Your task to perform on an android device: see sites visited before in the chrome app Image 0: 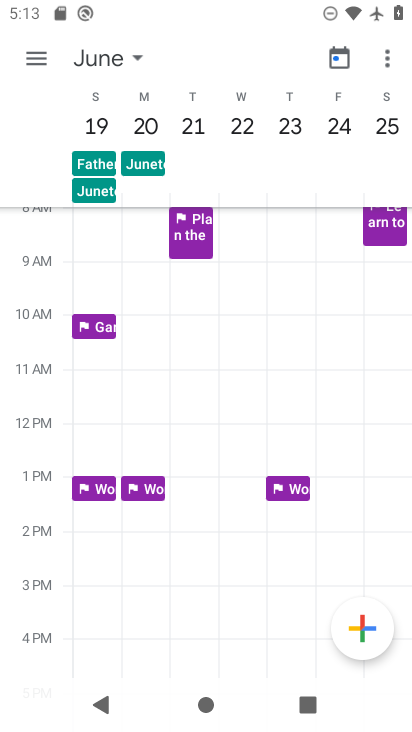
Step 0: press home button
Your task to perform on an android device: see sites visited before in the chrome app Image 1: 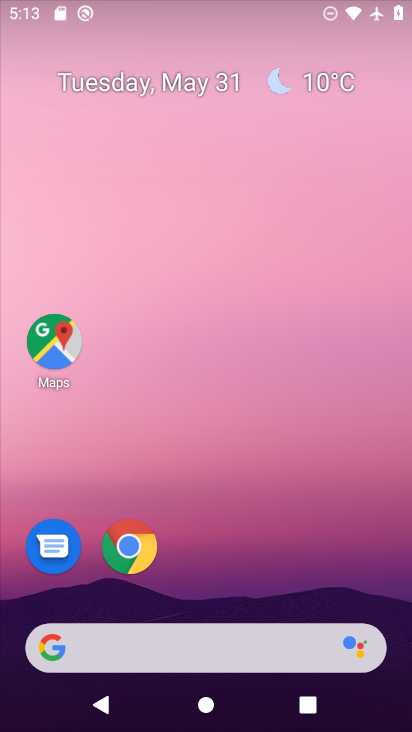
Step 1: click (127, 530)
Your task to perform on an android device: see sites visited before in the chrome app Image 2: 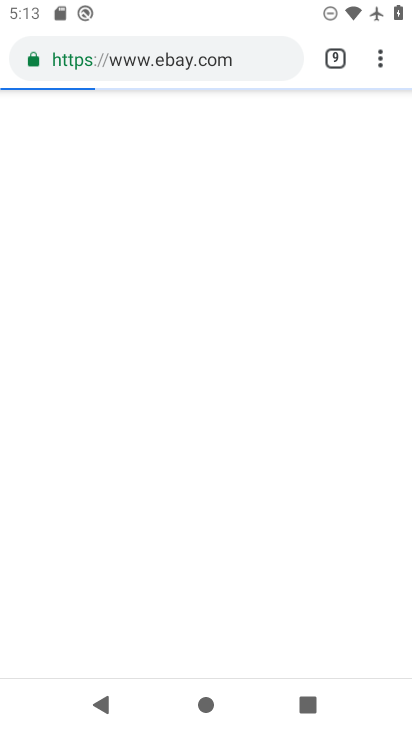
Step 2: click (373, 57)
Your task to perform on an android device: see sites visited before in the chrome app Image 3: 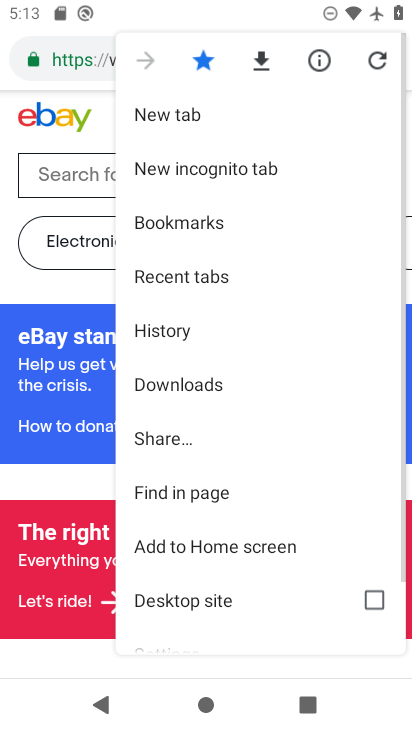
Step 3: click (191, 334)
Your task to perform on an android device: see sites visited before in the chrome app Image 4: 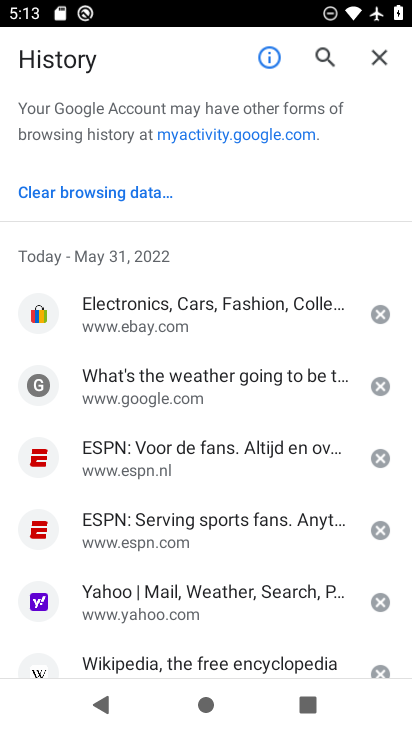
Step 4: task complete